Your task to perform on an android device: Go to CNN.com Image 0: 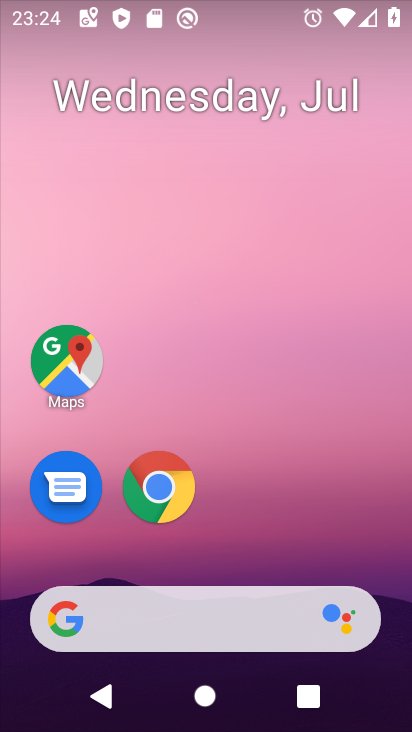
Step 0: click (171, 503)
Your task to perform on an android device: Go to CNN.com Image 1: 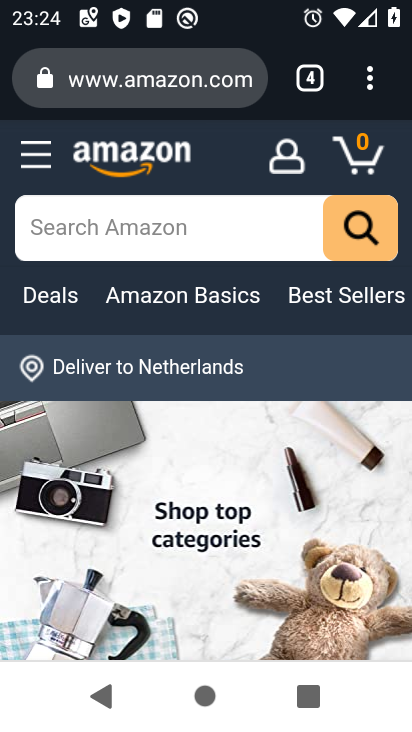
Step 1: click (306, 74)
Your task to perform on an android device: Go to CNN.com Image 2: 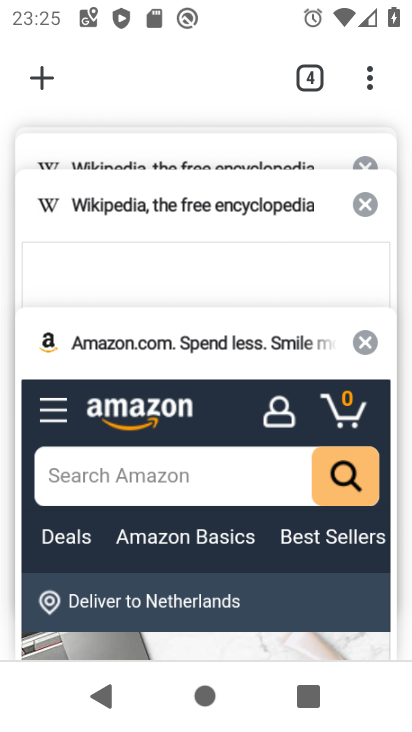
Step 2: click (29, 70)
Your task to perform on an android device: Go to CNN.com Image 3: 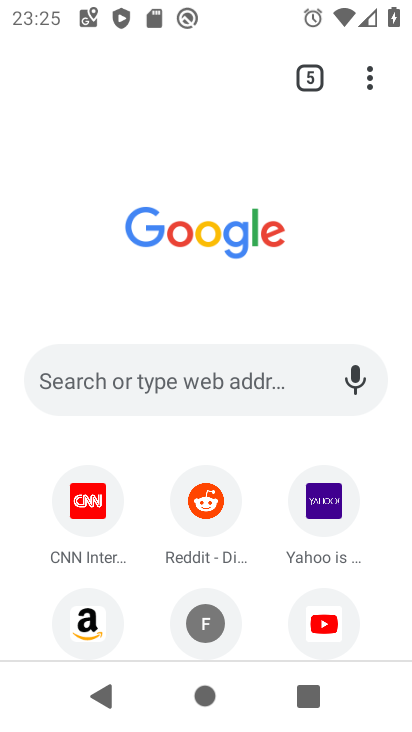
Step 3: click (73, 503)
Your task to perform on an android device: Go to CNN.com Image 4: 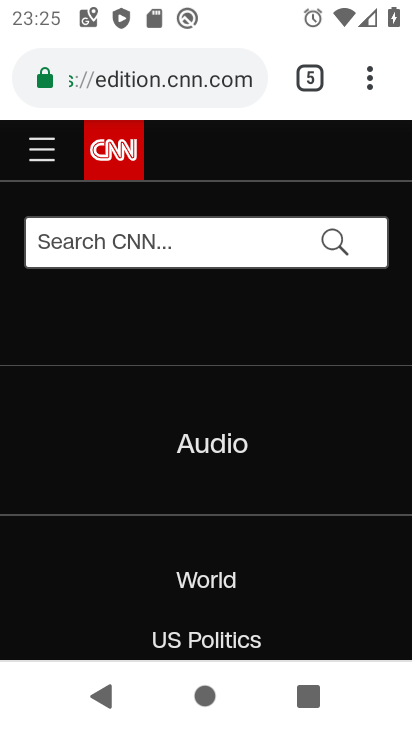
Step 4: task complete